Your task to perform on an android device: What's the weather? Image 0: 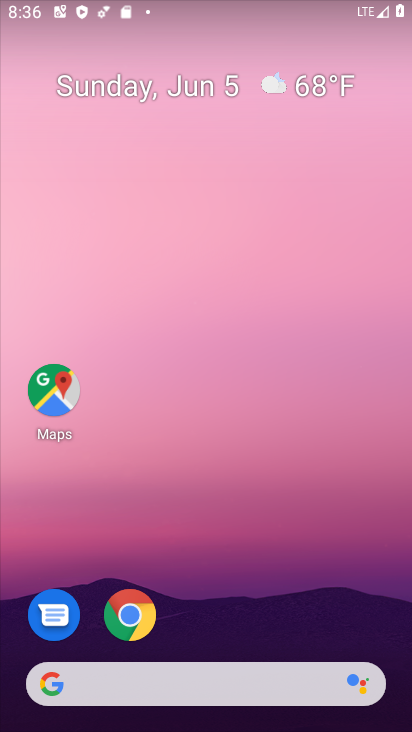
Step 0: click (297, 87)
Your task to perform on an android device: What's the weather? Image 1: 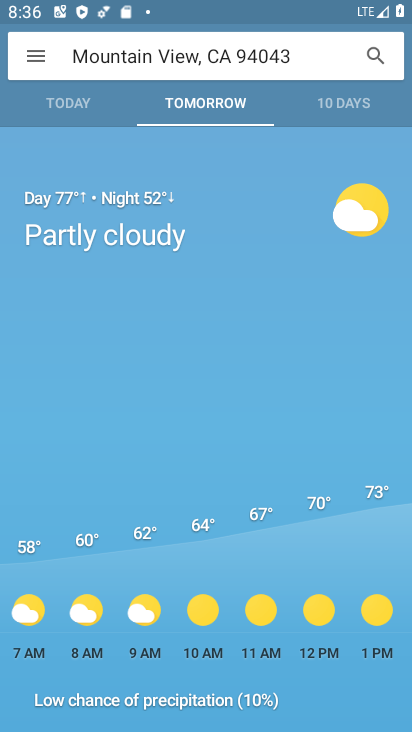
Step 1: click (70, 100)
Your task to perform on an android device: What's the weather? Image 2: 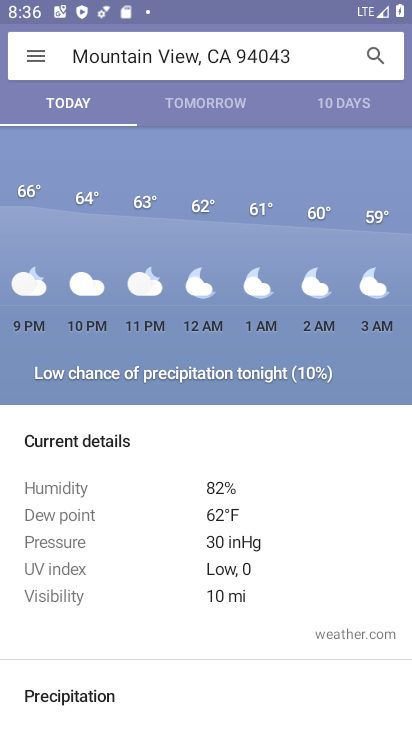
Step 2: task complete